Your task to perform on an android device: turn off location Image 0: 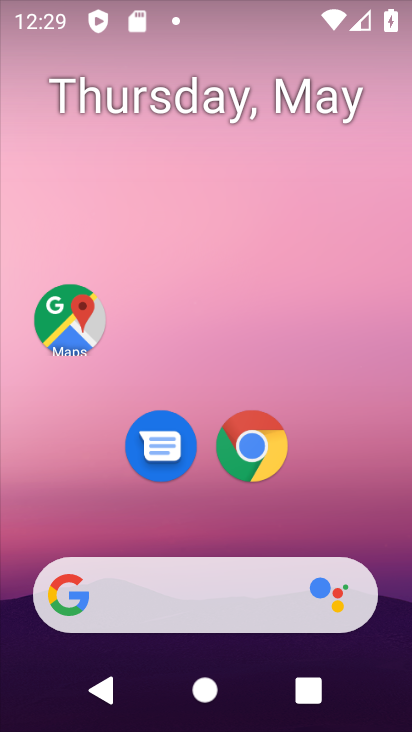
Step 0: drag from (332, 516) to (328, 210)
Your task to perform on an android device: turn off location Image 1: 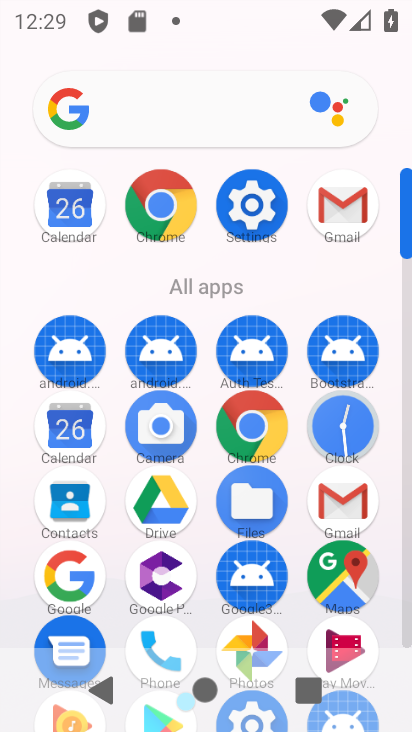
Step 1: click (251, 203)
Your task to perform on an android device: turn off location Image 2: 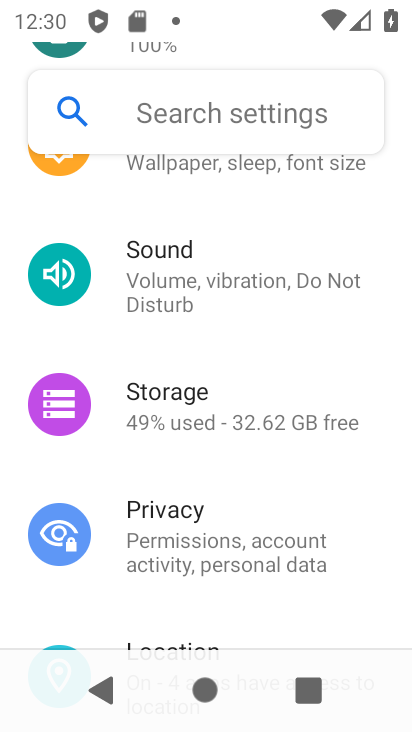
Step 2: drag from (296, 550) to (327, 317)
Your task to perform on an android device: turn off location Image 3: 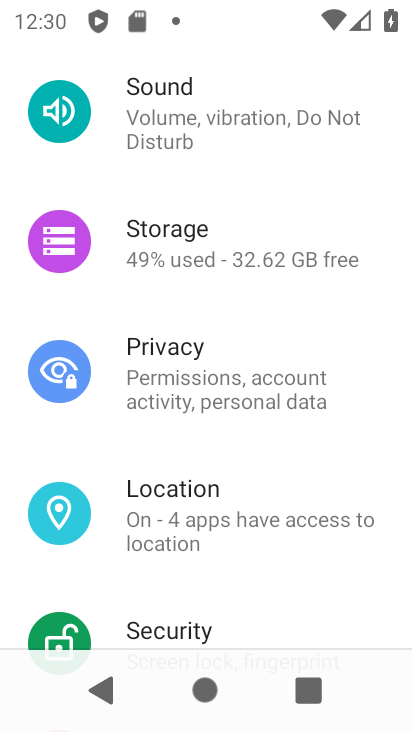
Step 3: click (264, 503)
Your task to perform on an android device: turn off location Image 4: 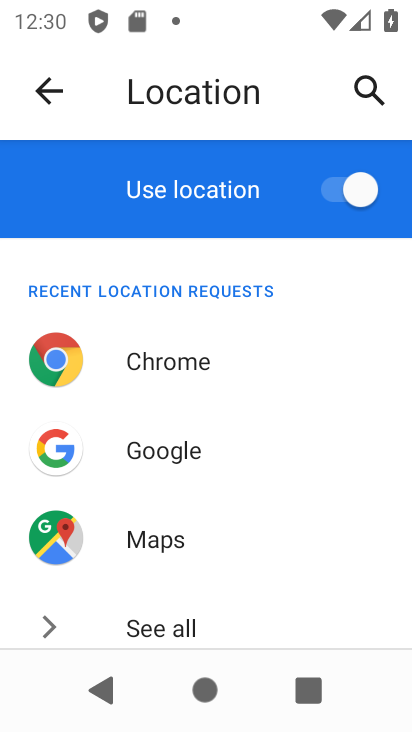
Step 4: task complete